Your task to perform on an android device: turn off translation in the chrome app Image 0: 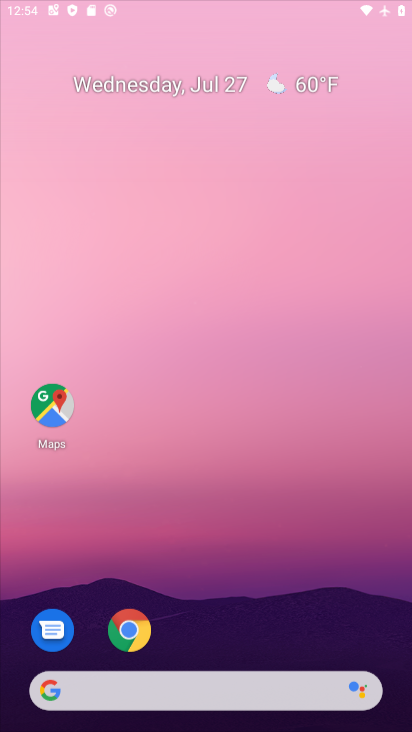
Step 0: press home button
Your task to perform on an android device: turn off translation in the chrome app Image 1: 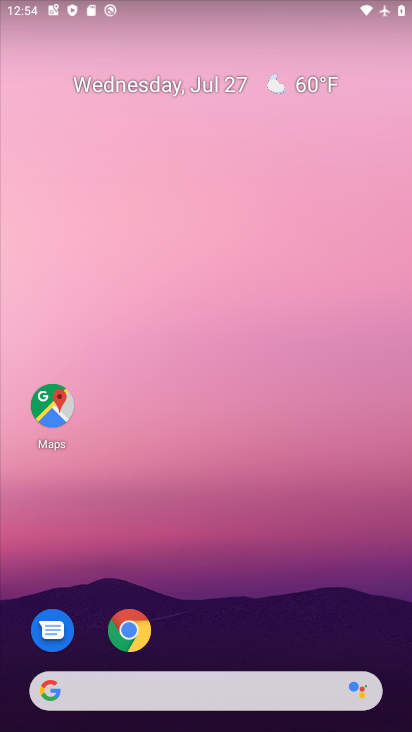
Step 1: drag from (220, 612) to (196, 24)
Your task to perform on an android device: turn off translation in the chrome app Image 2: 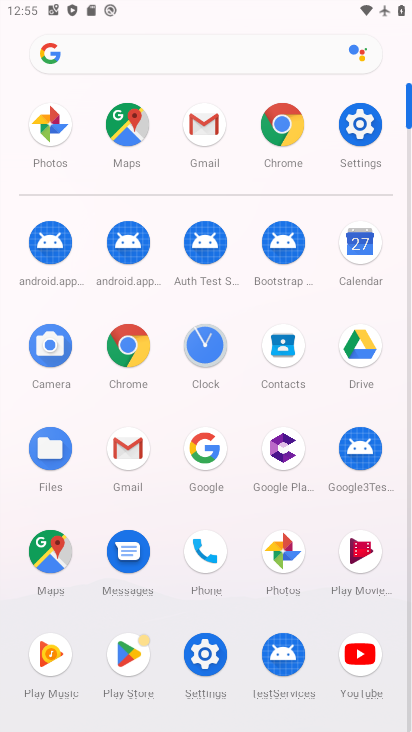
Step 2: click (272, 122)
Your task to perform on an android device: turn off translation in the chrome app Image 3: 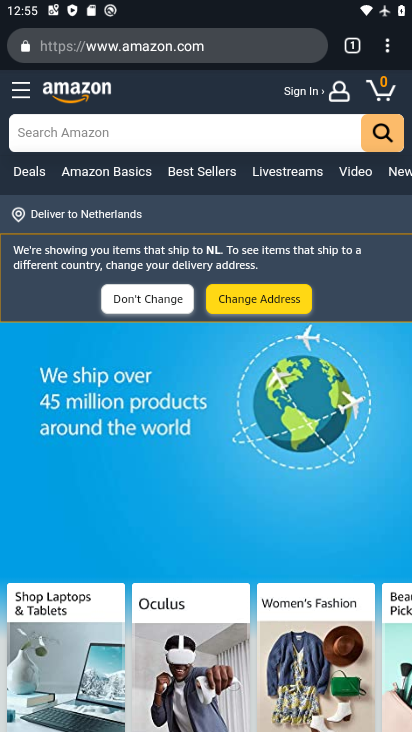
Step 3: drag from (385, 41) to (233, 543)
Your task to perform on an android device: turn off translation in the chrome app Image 4: 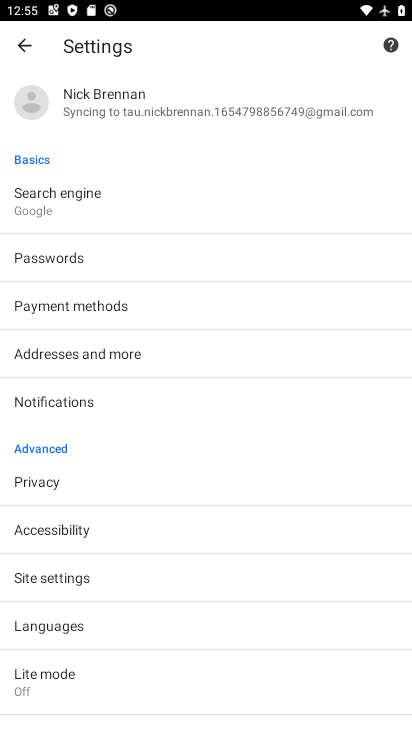
Step 4: click (42, 624)
Your task to perform on an android device: turn off translation in the chrome app Image 5: 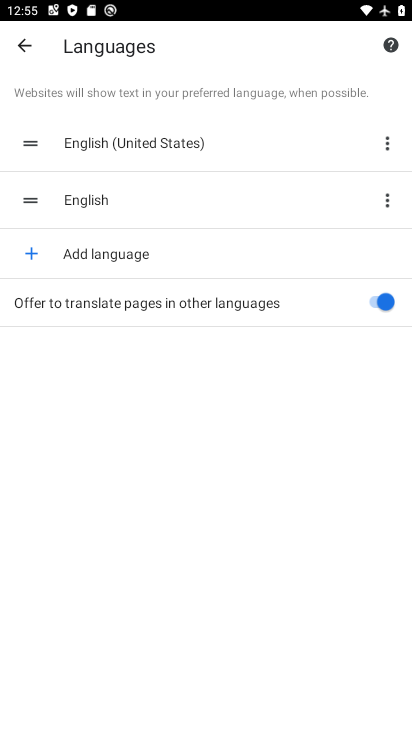
Step 5: click (390, 304)
Your task to perform on an android device: turn off translation in the chrome app Image 6: 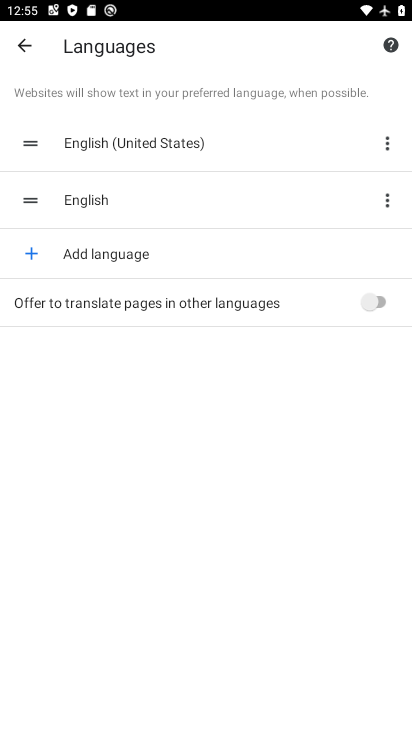
Step 6: task complete